Your task to perform on an android device: turn off picture-in-picture Image 0: 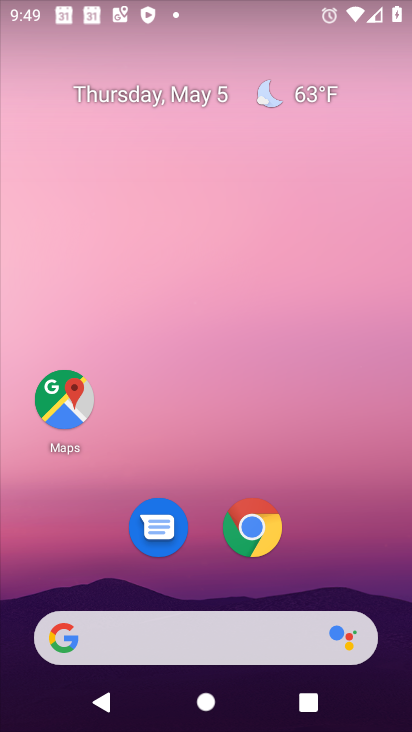
Step 0: click (259, 546)
Your task to perform on an android device: turn off picture-in-picture Image 1: 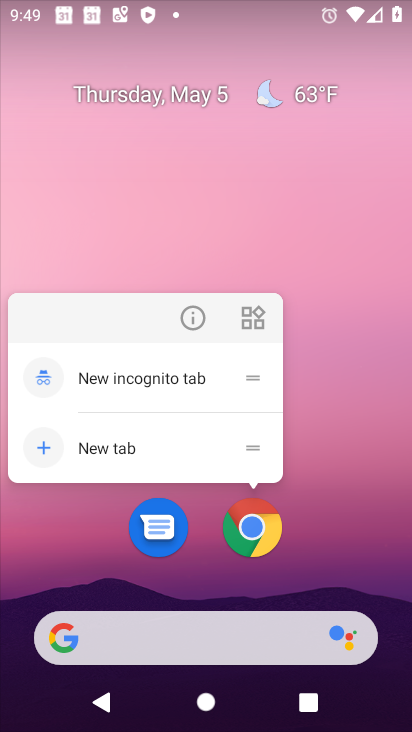
Step 1: click (200, 322)
Your task to perform on an android device: turn off picture-in-picture Image 2: 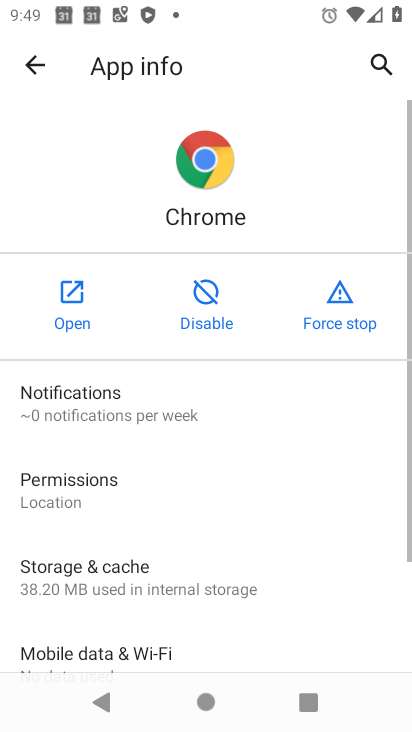
Step 2: drag from (290, 652) to (247, 21)
Your task to perform on an android device: turn off picture-in-picture Image 3: 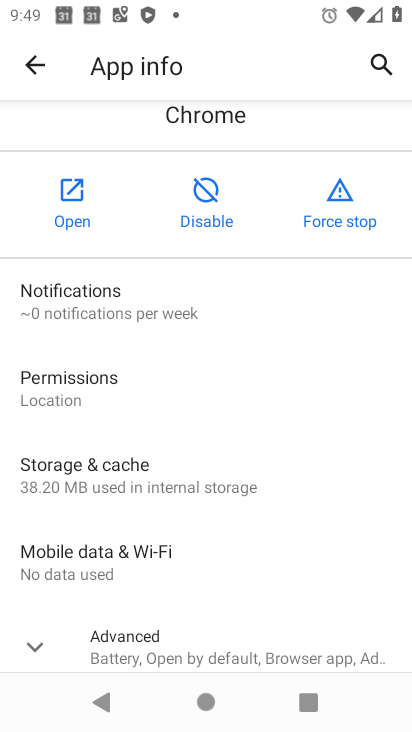
Step 3: click (156, 648)
Your task to perform on an android device: turn off picture-in-picture Image 4: 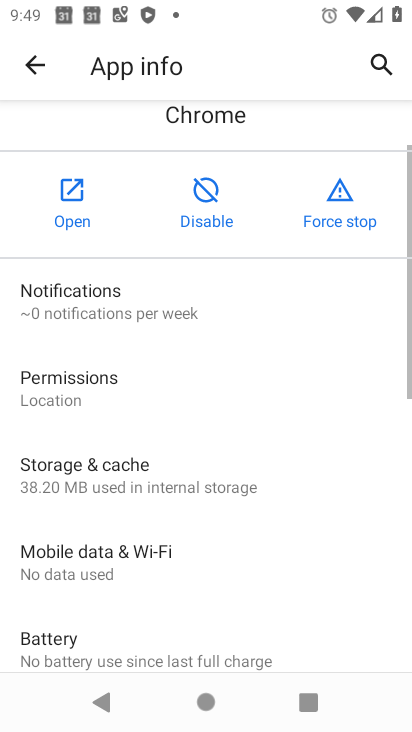
Step 4: drag from (232, 638) to (151, 93)
Your task to perform on an android device: turn off picture-in-picture Image 5: 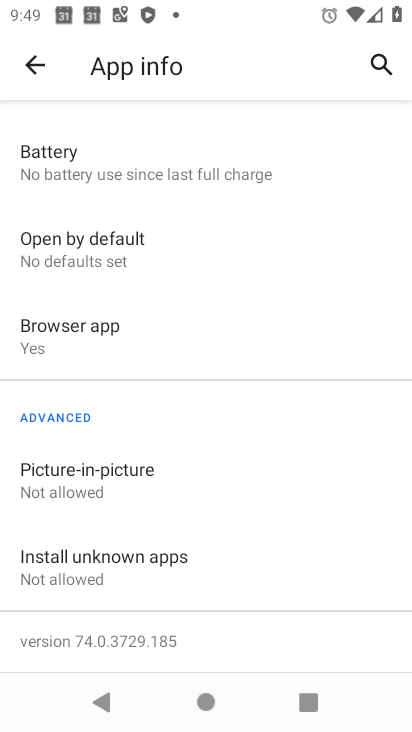
Step 5: click (108, 480)
Your task to perform on an android device: turn off picture-in-picture Image 6: 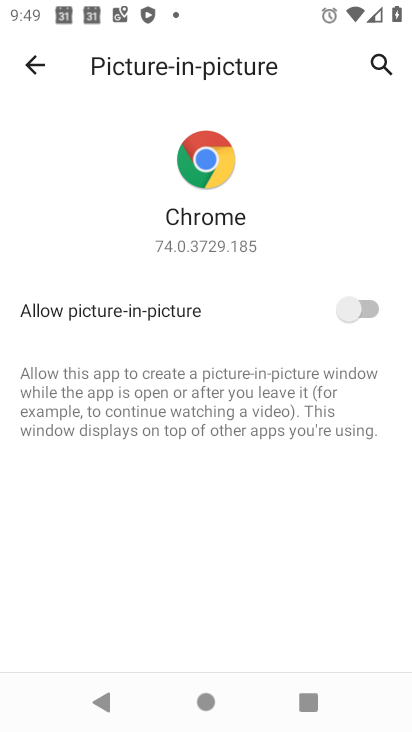
Step 6: task complete